Your task to perform on an android device: What's the weather today? Image 0: 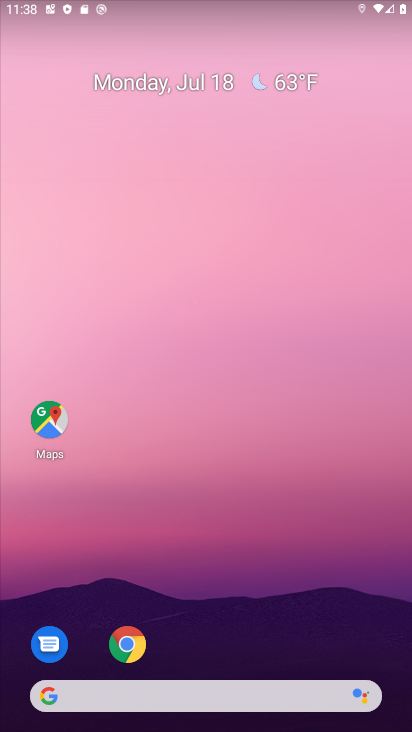
Step 0: drag from (232, 724) to (226, 359)
Your task to perform on an android device: What's the weather today? Image 1: 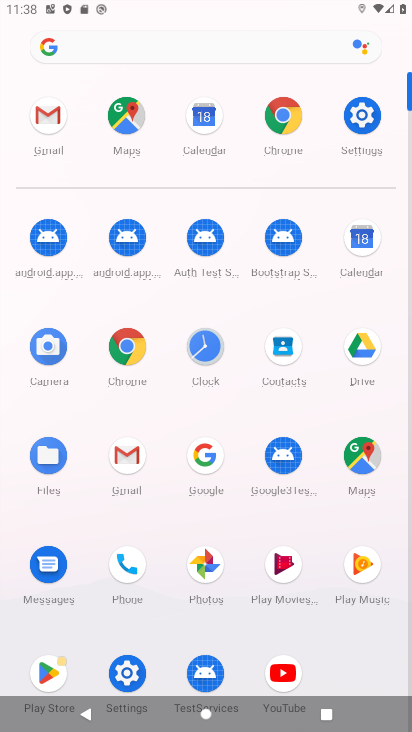
Step 1: click (199, 463)
Your task to perform on an android device: What's the weather today? Image 2: 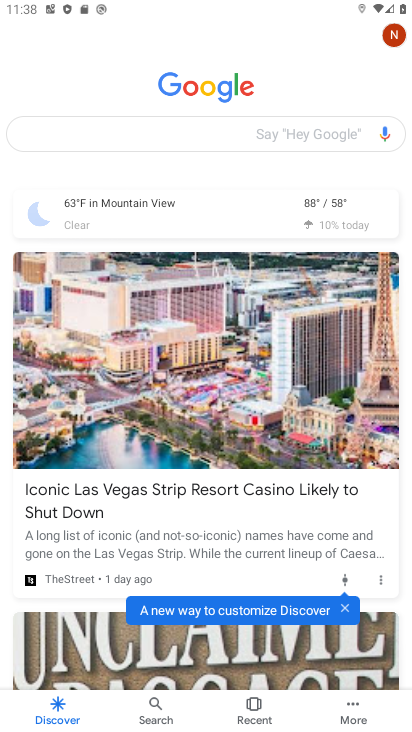
Step 2: click (118, 203)
Your task to perform on an android device: What's the weather today? Image 3: 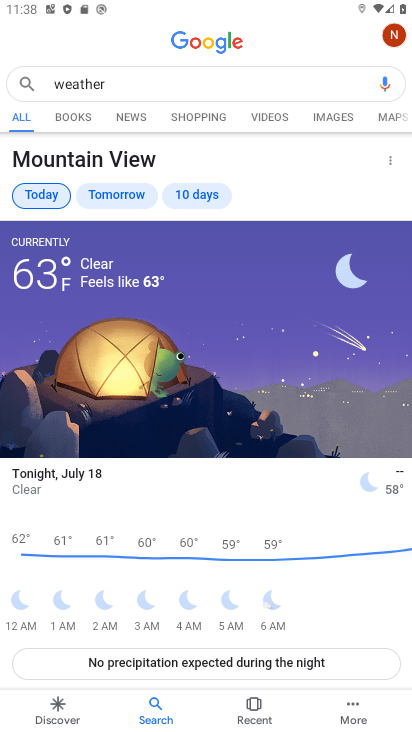
Step 3: click (38, 189)
Your task to perform on an android device: What's the weather today? Image 4: 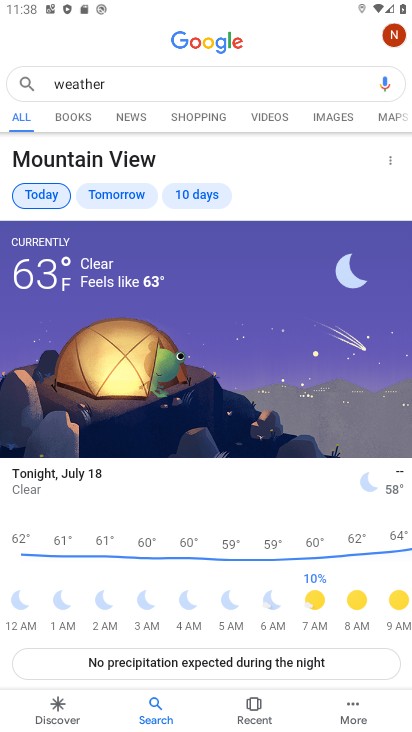
Step 4: click (43, 199)
Your task to perform on an android device: What's the weather today? Image 5: 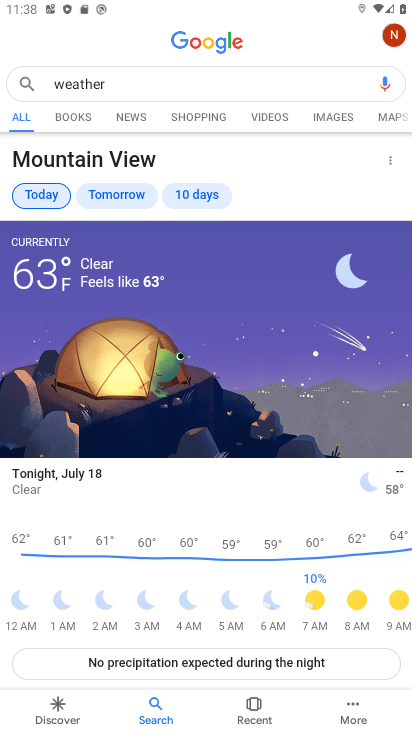
Step 5: task complete